Your task to perform on an android device: open app "Reddit" (install if not already installed), go to login, and select forgot password Image 0: 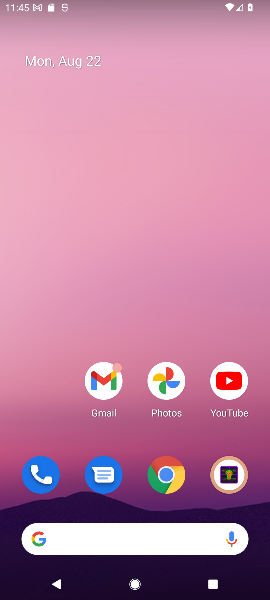
Step 0: drag from (119, 505) to (151, 31)
Your task to perform on an android device: open app "Reddit" (install if not already installed), go to login, and select forgot password Image 1: 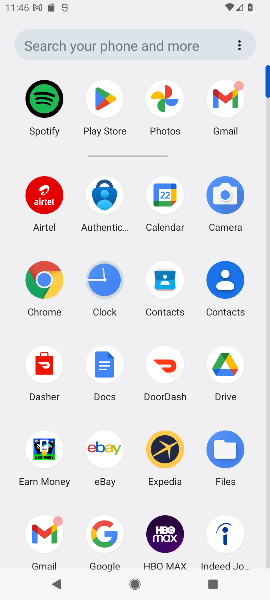
Step 1: click (97, 89)
Your task to perform on an android device: open app "Reddit" (install if not already installed), go to login, and select forgot password Image 2: 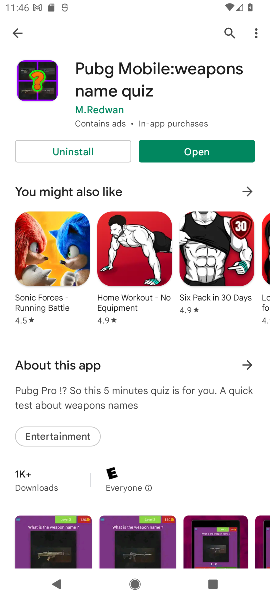
Step 2: click (10, 32)
Your task to perform on an android device: open app "Reddit" (install if not already installed), go to login, and select forgot password Image 3: 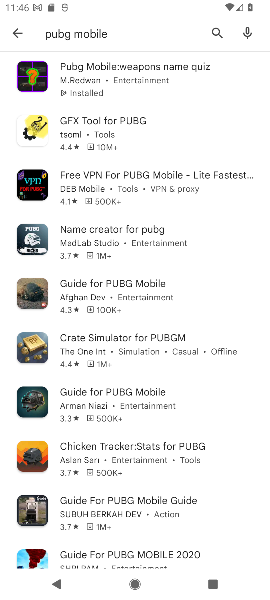
Step 3: click (18, 28)
Your task to perform on an android device: open app "Reddit" (install if not already installed), go to login, and select forgot password Image 4: 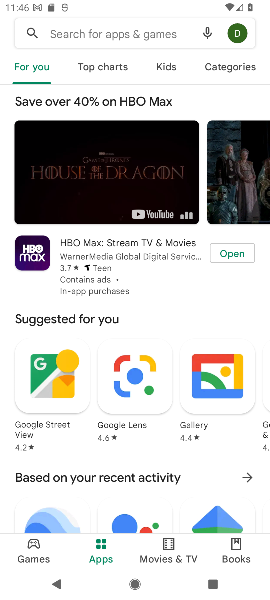
Step 4: click (61, 36)
Your task to perform on an android device: open app "Reddit" (install if not already installed), go to login, and select forgot password Image 5: 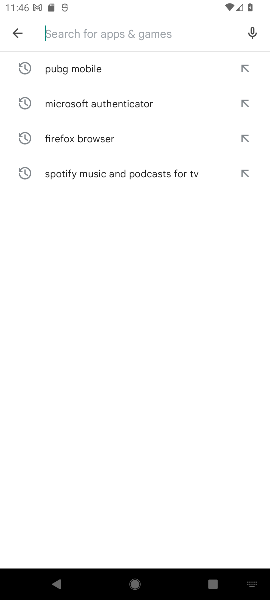
Step 5: type "Reddit"
Your task to perform on an android device: open app "Reddit" (install if not already installed), go to login, and select forgot password Image 6: 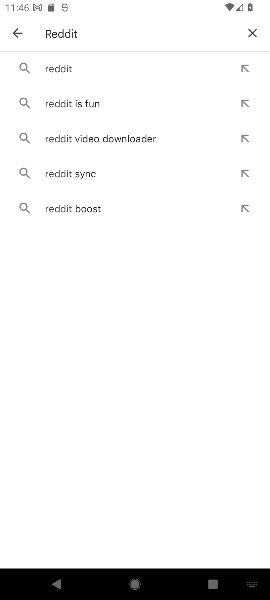
Step 6: click (59, 68)
Your task to perform on an android device: open app "Reddit" (install if not already installed), go to login, and select forgot password Image 7: 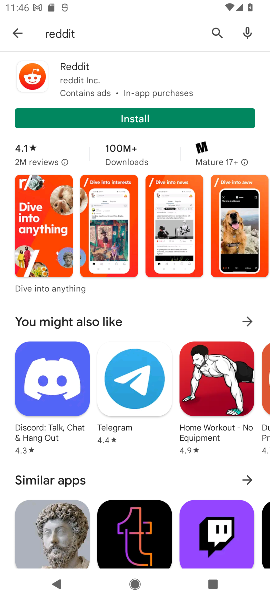
Step 7: click (120, 116)
Your task to perform on an android device: open app "Reddit" (install if not already installed), go to login, and select forgot password Image 8: 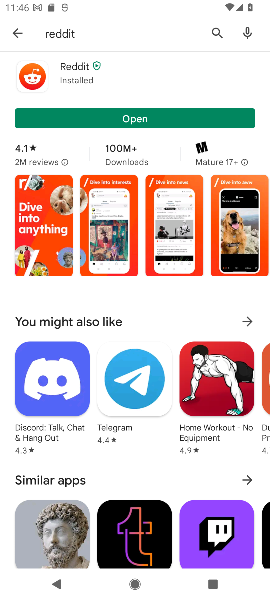
Step 8: click (120, 116)
Your task to perform on an android device: open app "Reddit" (install if not already installed), go to login, and select forgot password Image 9: 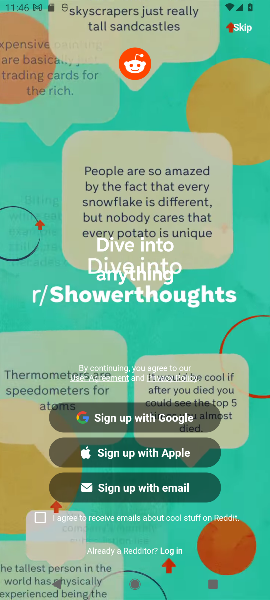
Step 9: click (169, 552)
Your task to perform on an android device: open app "Reddit" (install if not already installed), go to login, and select forgot password Image 10: 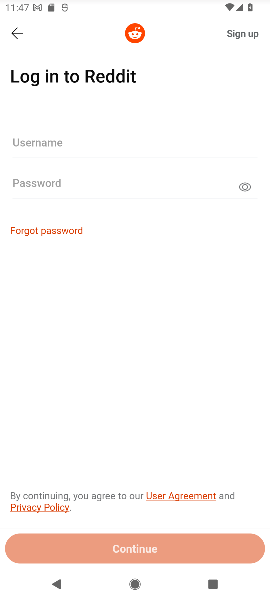
Step 10: click (52, 227)
Your task to perform on an android device: open app "Reddit" (install if not already installed), go to login, and select forgot password Image 11: 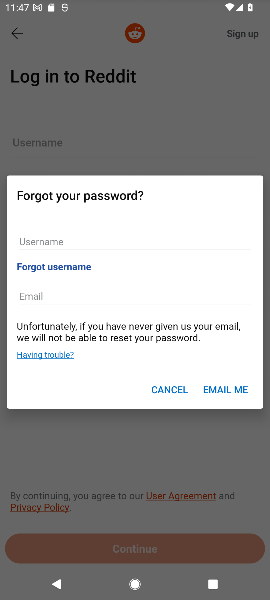
Step 11: task complete